Your task to perform on an android device: Search for sushi restaurants on Maps Image 0: 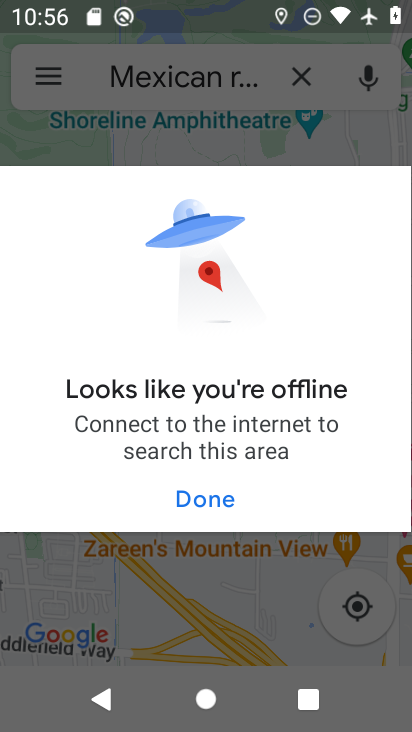
Step 0: click (196, 497)
Your task to perform on an android device: Search for sushi restaurants on Maps Image 1: 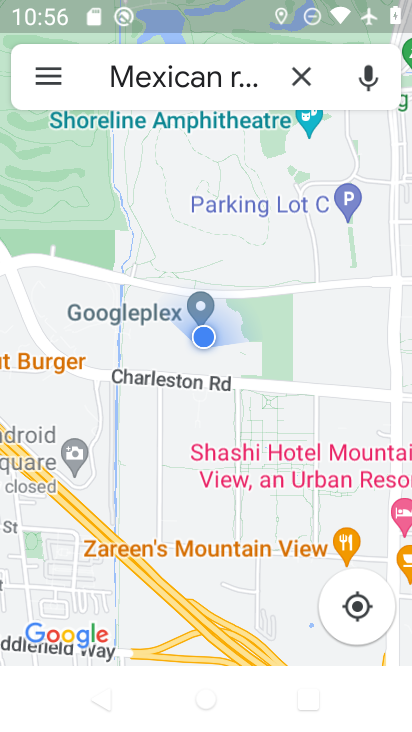
Step 1: click (311, 70)
Your task to perform on an android device: Search for sushi restaurants on Maps Image 2: 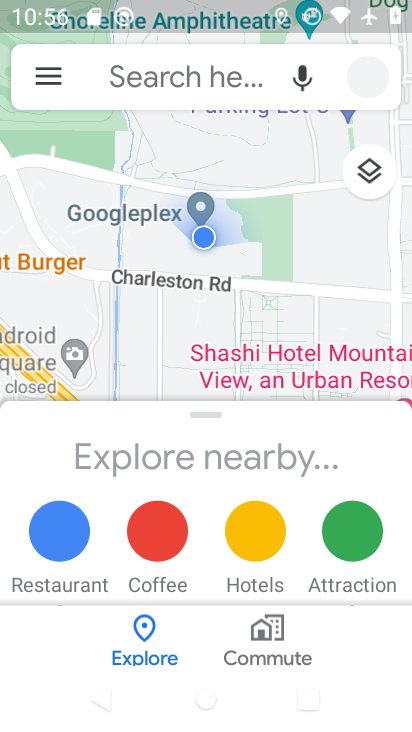
Step 2: click (213, 82)
Your task to perform on an android device: Search for sushi restaurants on Maps Image 3: 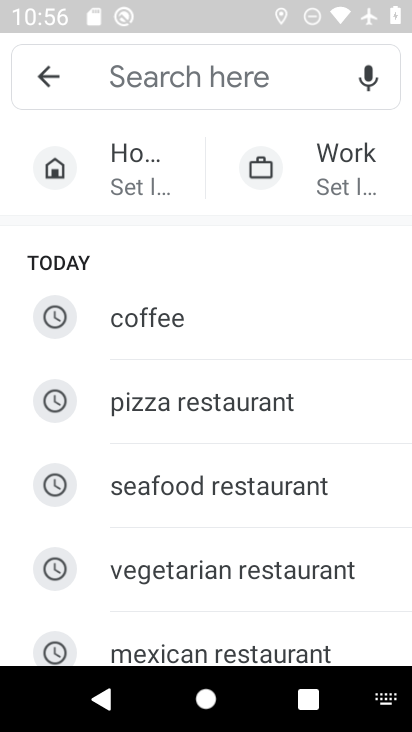
Step 3: drag from (284, 568) to (275, 294)
Your task to perform on an android device: Search for sushi restaurants on Maps Image 4: 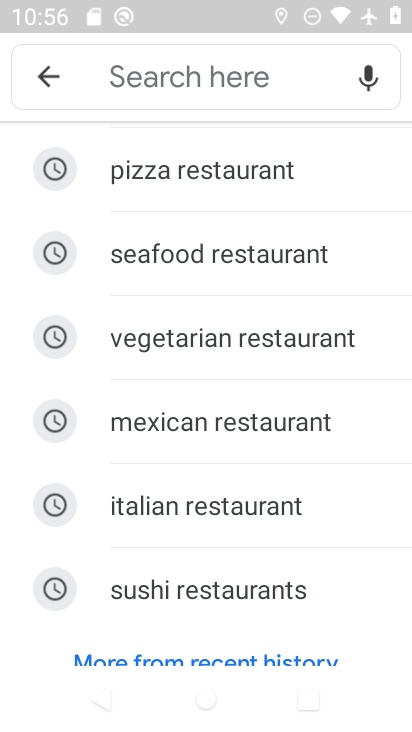
Step 4: click (202, 577)
Your task to perform on an android device: Search for sushi restaurants on Maps Image 5: 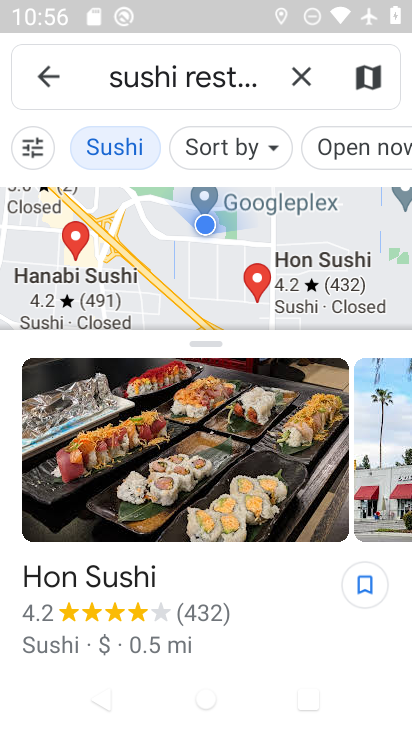
Step 5: task complete